Your task to perform on an android device: uninstall "PlayWell" Image 0: 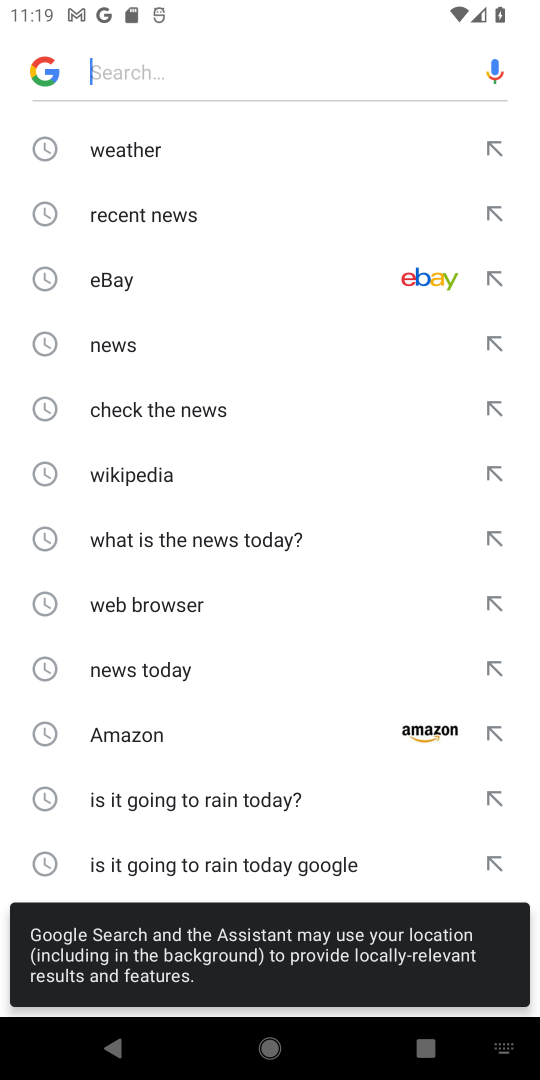
Step 0: press home button
Your task to perform on an android device: uninstall "PlayWell" Image 1: 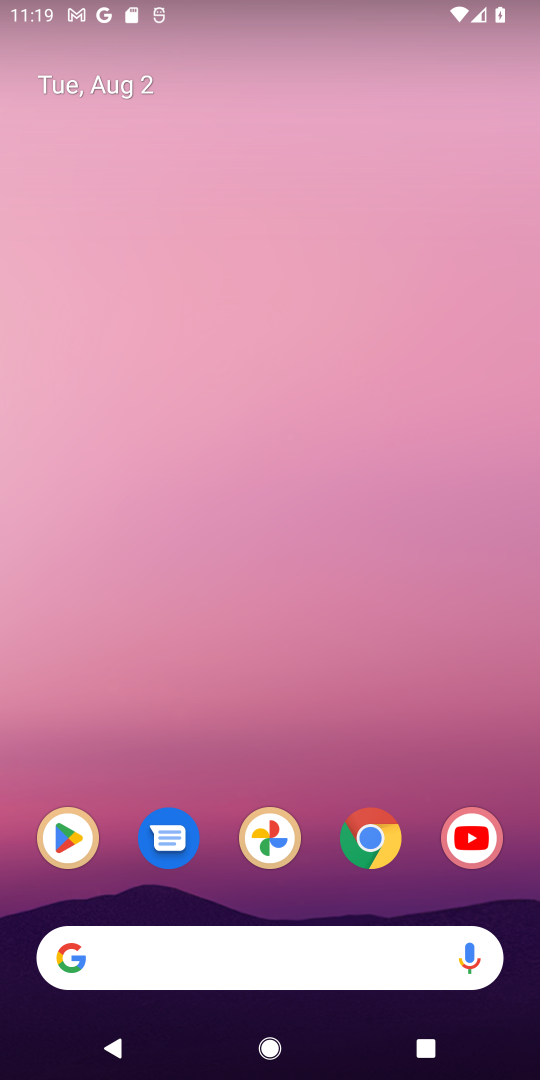
Step 1: drag from (274, 938) to (180, 29)
Your task to perform on an android device: uninstall "PlayWell" Image 2: 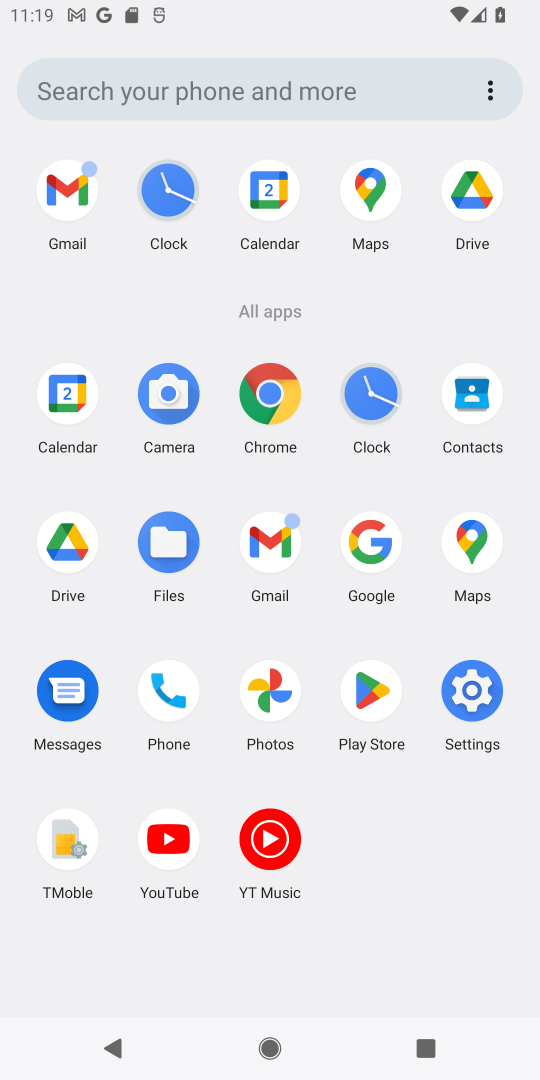
Step 2: click (384, 686)
Your task to perform on an android device: uninstall "PlayWell" Image 3: 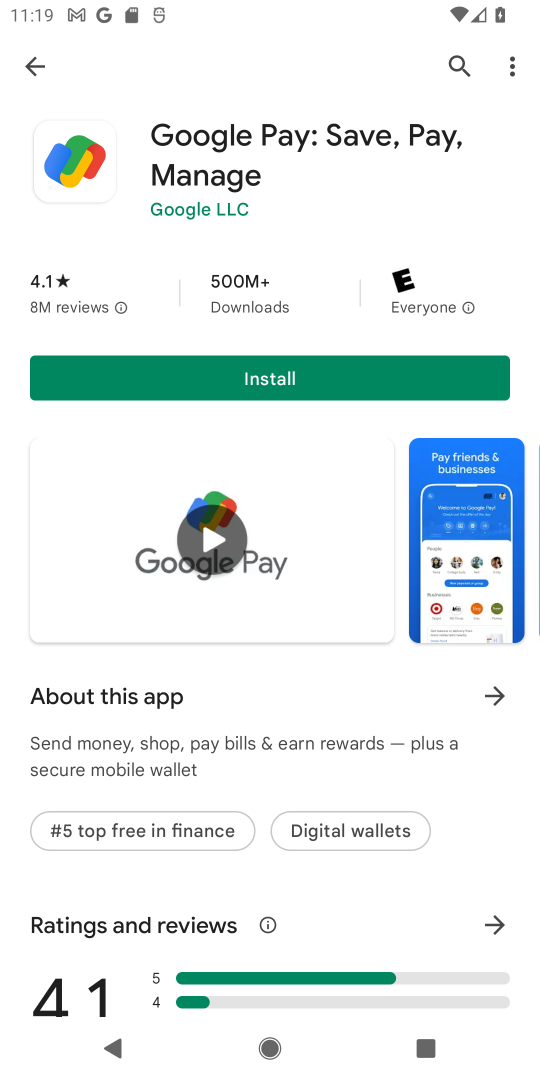
Step 3: click (449, 62)
Your task to perform on an android device: uninstall "PlayWell" Image 4: 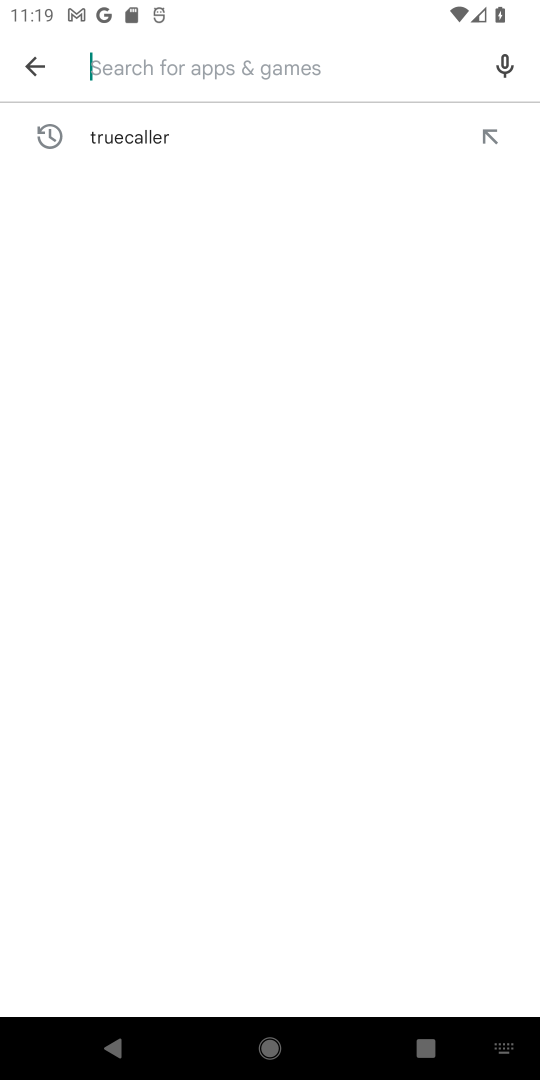
Step 4: type "PlayWell"
Your task to perform on an android device: uninstall "PlayWell" Image 5: 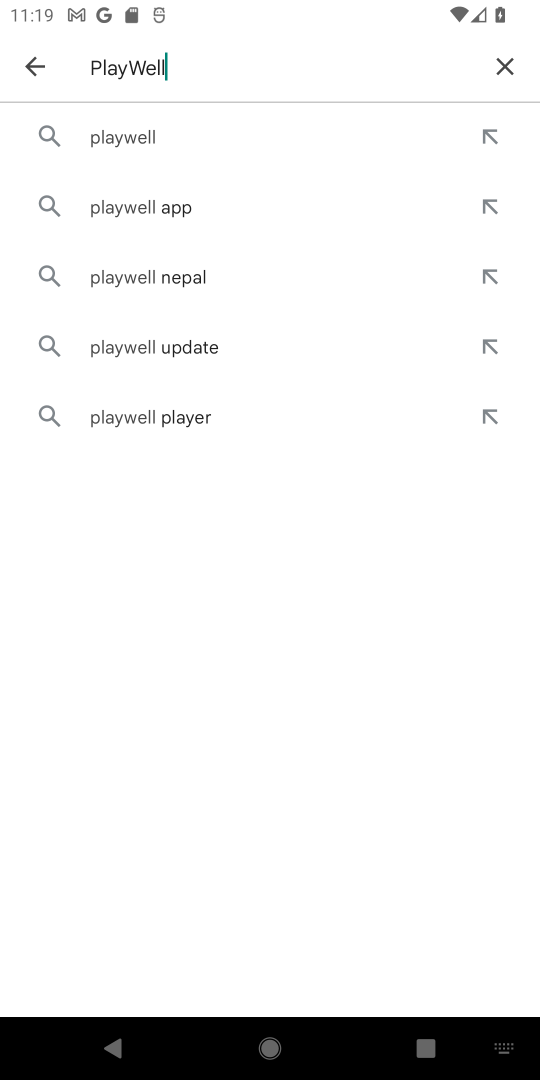
Step 5: click (124, 159)
Your task to perform on an android device: uninstall "PlayWell" Image 6: 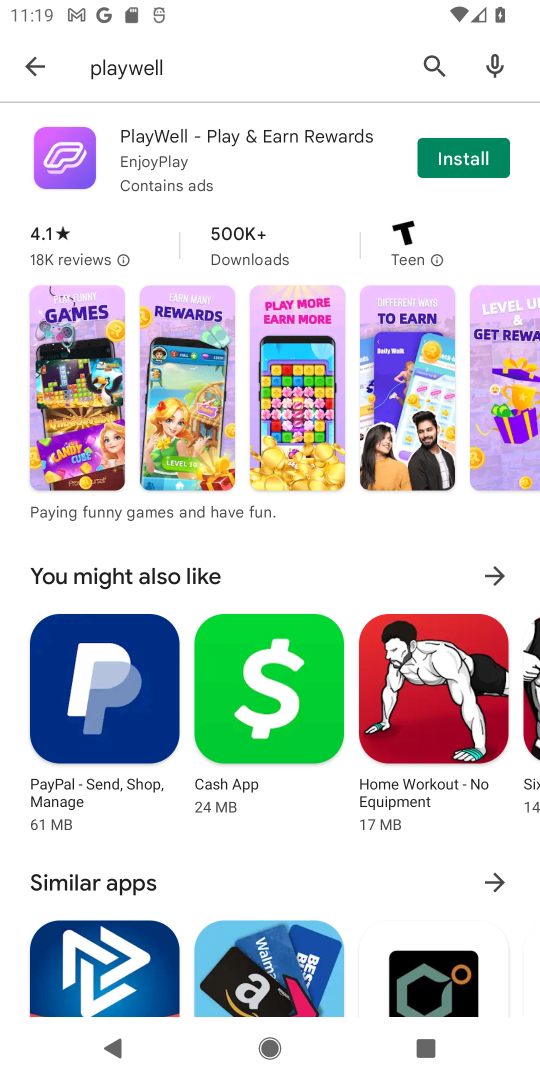
Step 6: task complete